Your task to perform on an android device: What's on my calendar today? Image 0: 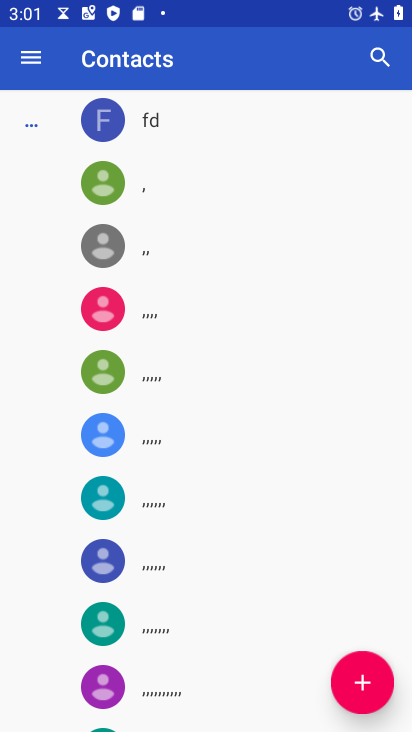
Step 0: press back button
Your task to perform on an android device: What's on my calendar today? Image 1: 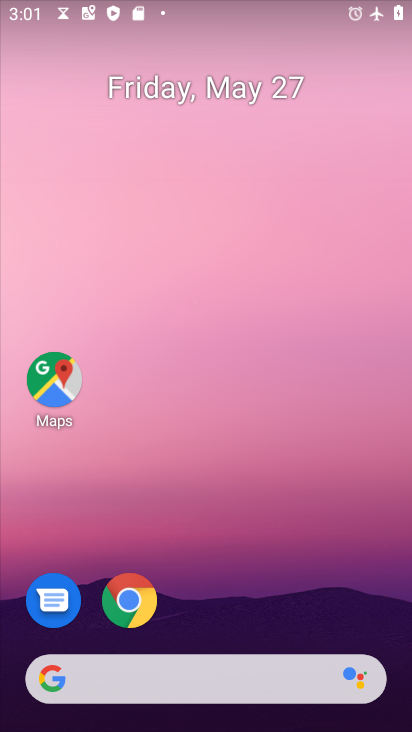
Step 1: drag from (280, 582) to (255, 28)
Your task to perform on an android device: What's on my calendar today? Image 2: 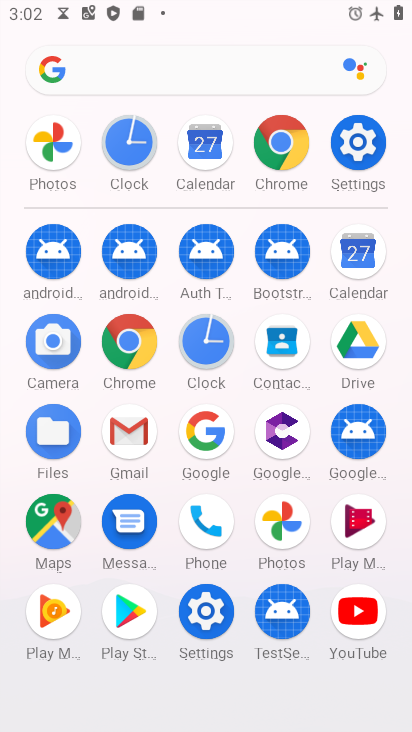
Step 2: drag from (5, 538) to (9, 213)
Your task to perform on an android device: What's on my calendar today? Image 3: 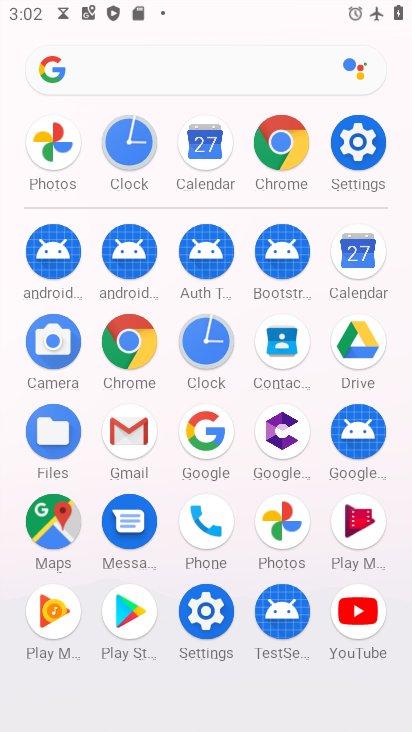
Step 3: click (356, 249)
Your task to perform on an android device: What's on my calendar today? Image 4: 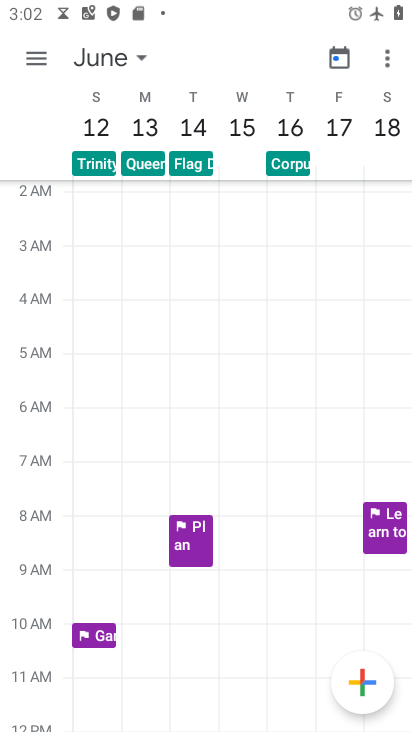
Step 4: click (343, 61)
Your task to perform on an android device: What's on my calendar today? Image 5: 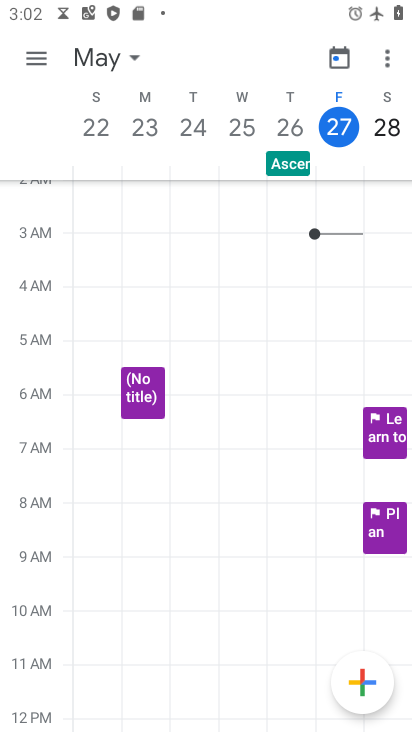
Step 5: click (335, 125)
Your task to perform on an android device: What's on my calendar today? Image 6: 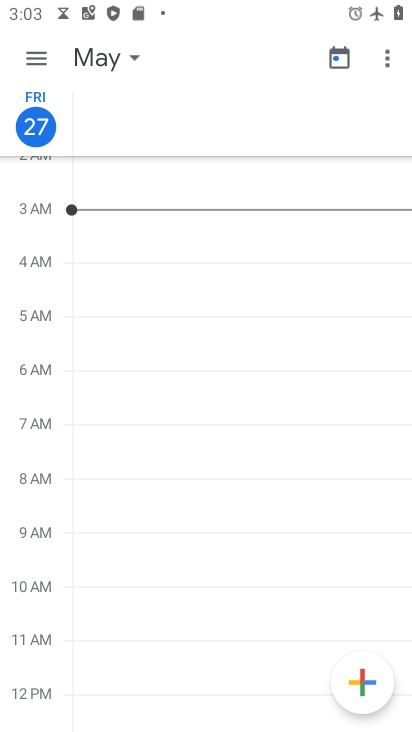
Step 6: task complete